Your task to perform on an android device: turn notification dots off Image 0: 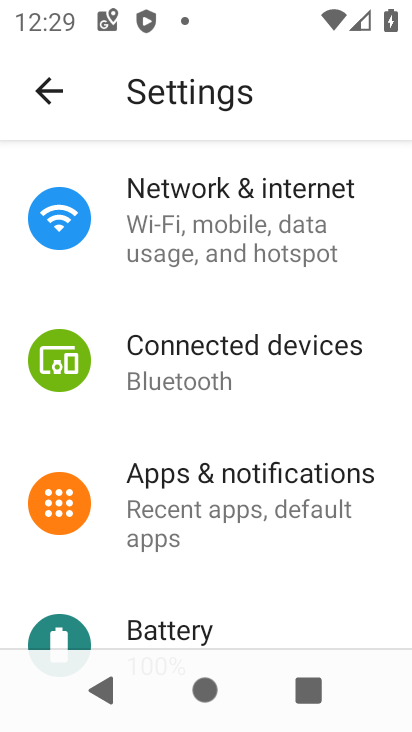
Step 0: click (273, 499)
Your task to perform on an android device: turn notification dots off Image 1: 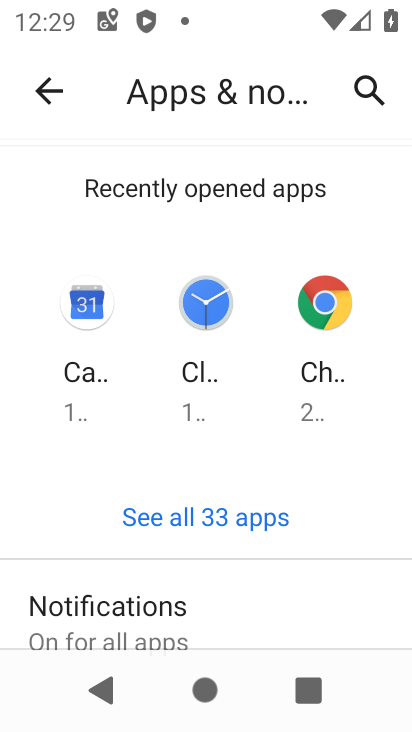
Step 1: click (139, 657)
Your task to perform on an android device: turn notification dots off Image 2: 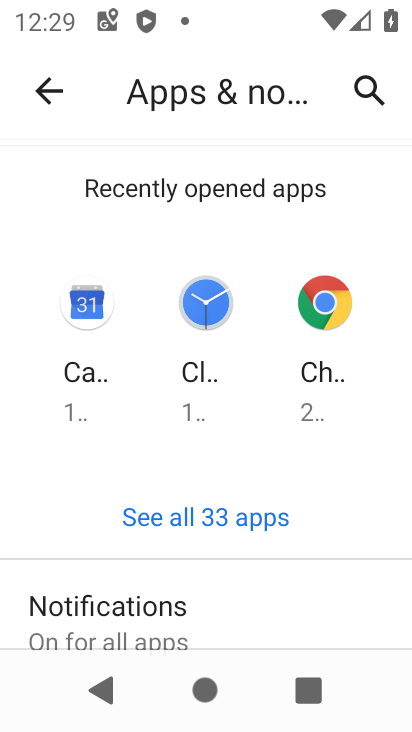
Step 2: click (146, 643)
Your task to perform on an android device: turn notification dots off Image 3: 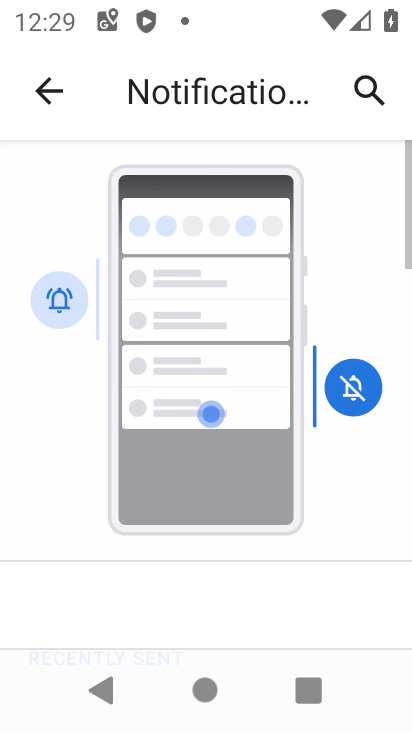
Step 3: drag from (188, 576) to (244, 46)
Your task to perform on an android device: turn notification dots off Image 4: 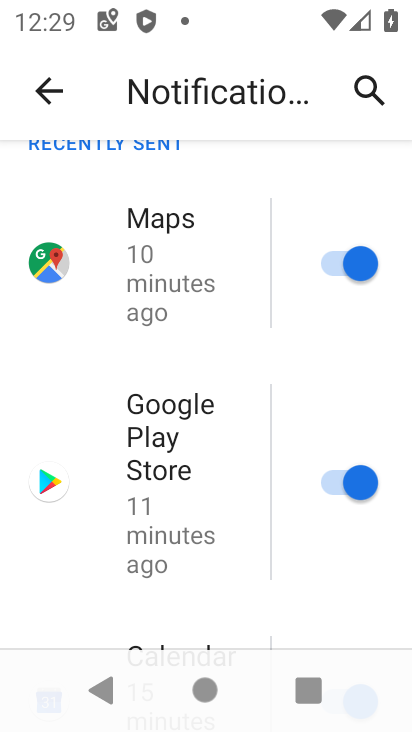
Step 4: drag from (190, 579) to (195, 200)
Your task to perform on an android device: turn notification dots off Image 5: 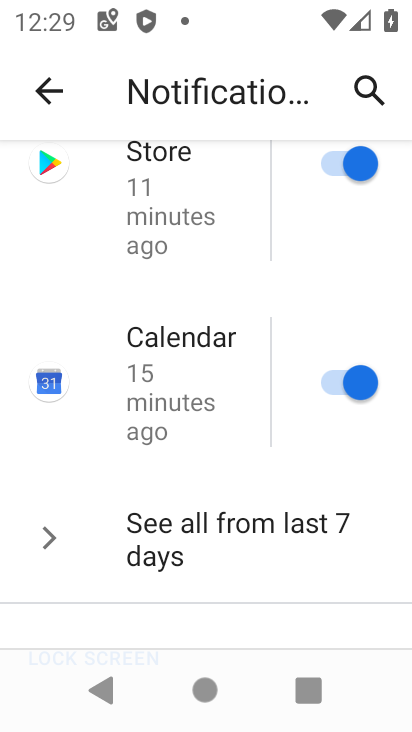
Step 5: drag from (130, 557) to (142, 102)
Your task to perform on an android device: turn notification dots off Image 6: 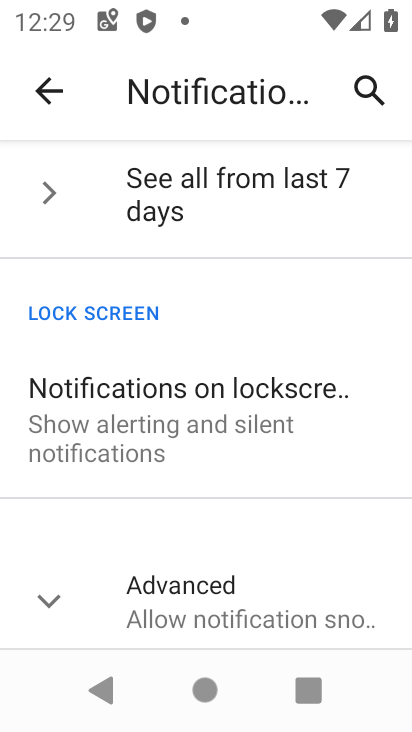
Step 6: drag from (198, 463) to (278, 76)
Your task to perform on an android device: turn notification dots off Image 7: 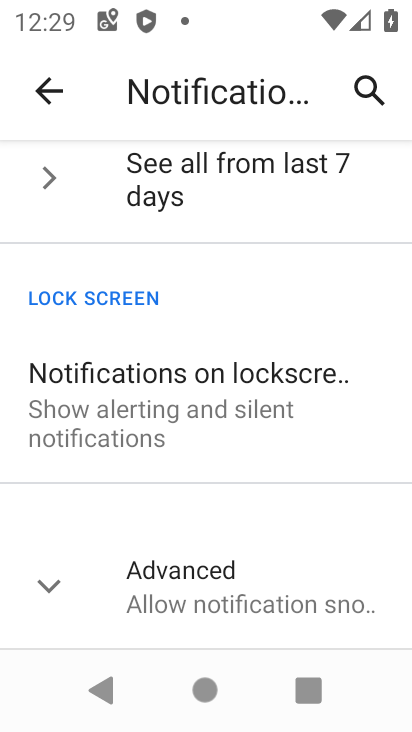
Step 7: click (188, 605)
Your task to perform on an android device: turn notification dots off Image 8: 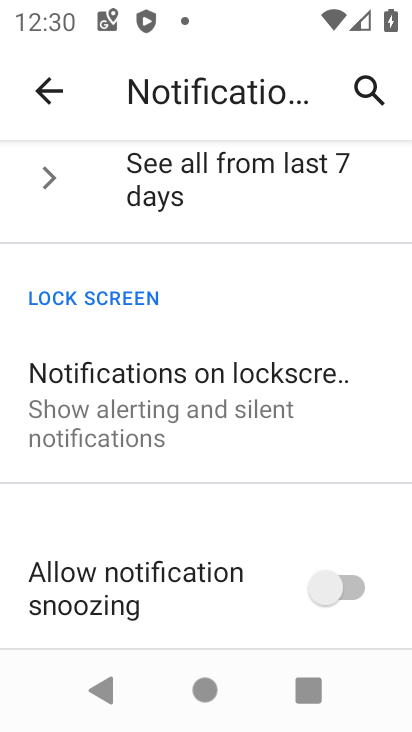
Step 8: drag from (147, 483) to (212, 90)
Your task to perform on an android device: turn notification dots off Image 9: 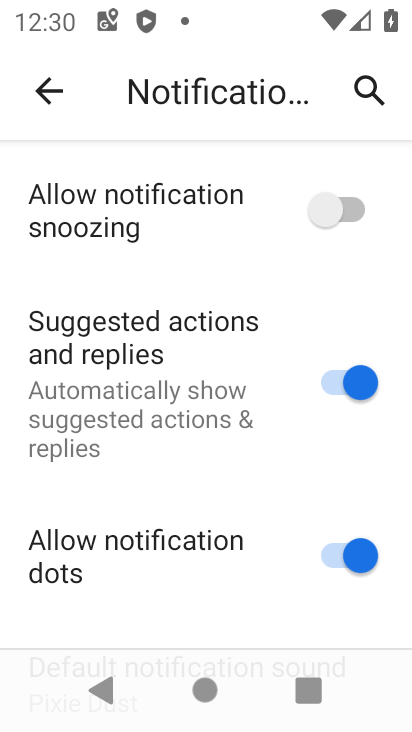
Step 9: drag from (244, 551) to (247, 127)
Your task to perform on an android device: turn notification dots off Image 10: 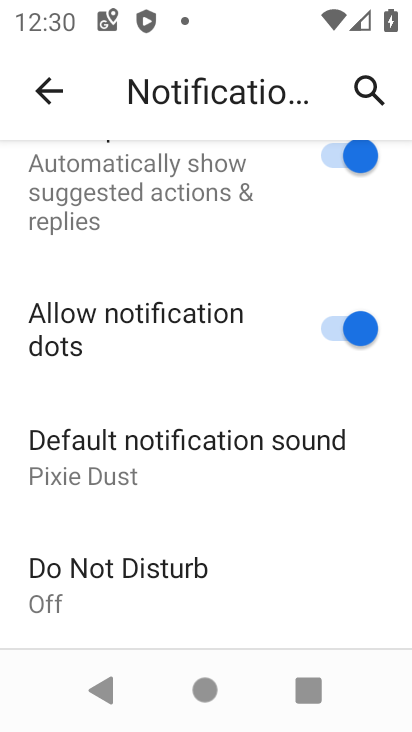
Step 10: click (335, 319)
Your task to perform on an android device: turn notification dots off Image 11: 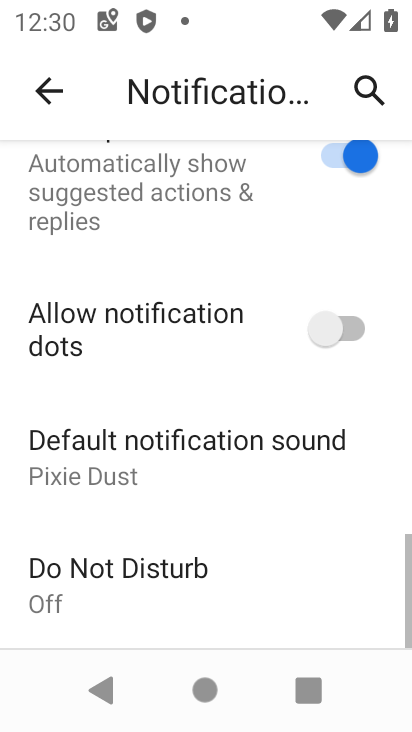
Step 11: task complete